Your task to perform on an android device: Toggle the flashlight Image 0: 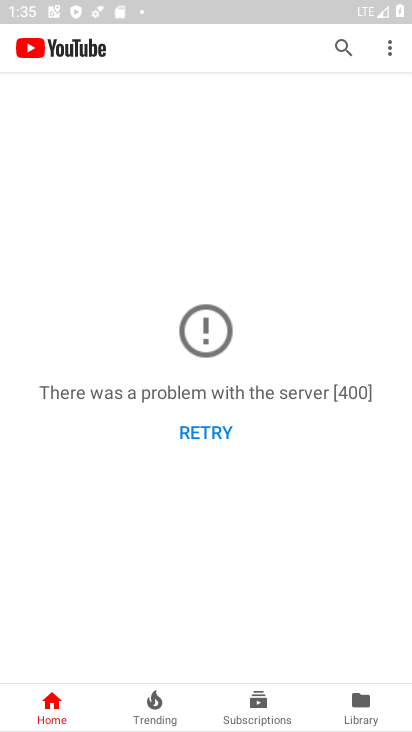
Step 0: press home button
Your task to perform on an android device: Toggle the flashlight Image 1: 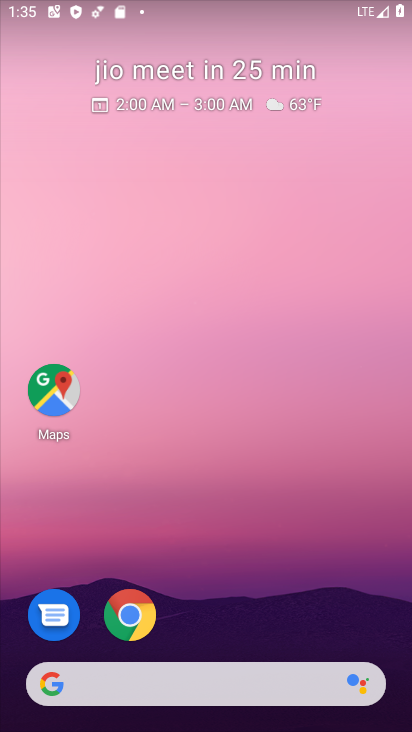
Step 1: task complete